Your task to perform on an android device: turn smart compose on in the gmail app Image 0: 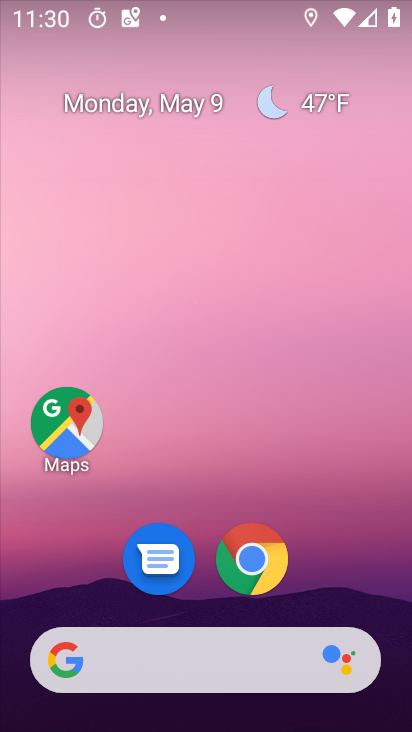
Step 0: drag from (340, 583) to (361, 21)
Your task to perform on an android device: turn smart compose on in the gmail app Image 1: 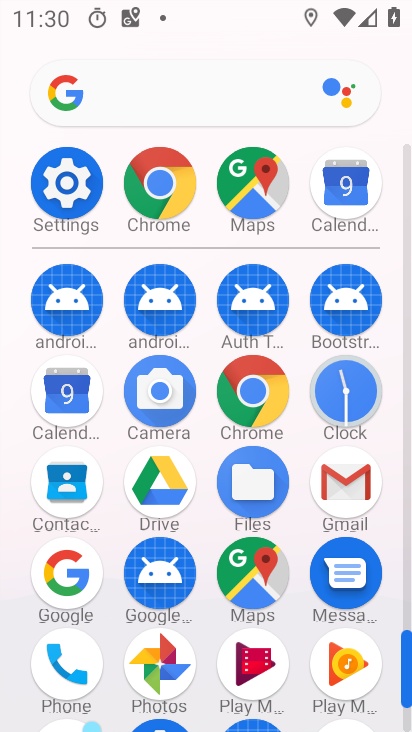
Step 1: click (346, 492)
Your task to perform on an android device: turn smart compose on in the gmail app Image 2: 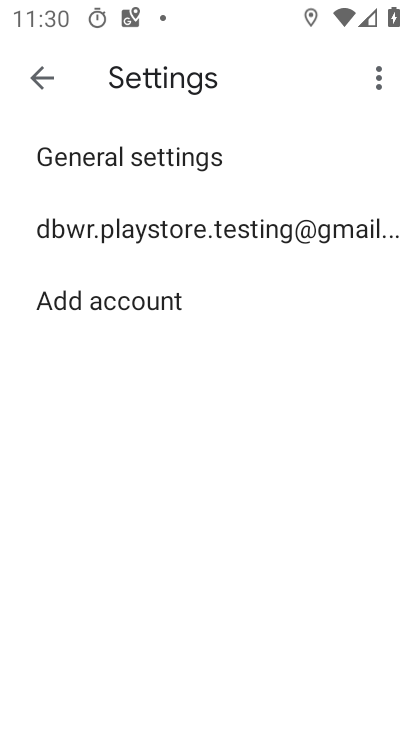
Step 2: click (30, 66)
Your task to perform on an android device: turn smart compose on in the gmail app Image 3: 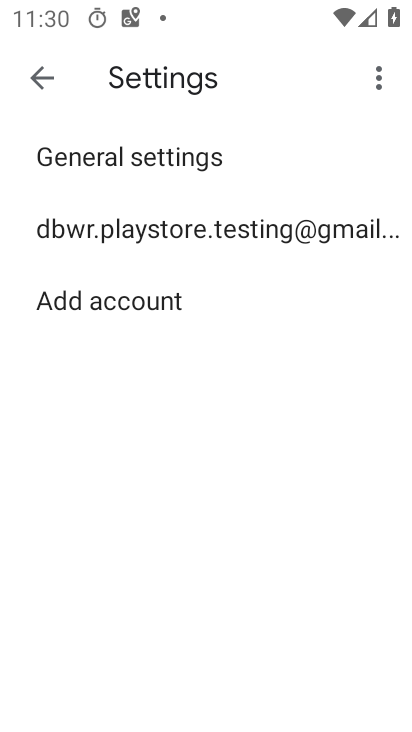
Step 3: click (47, 92)
Your task to perform on an android device: turn smart compose on in the gmail app Image 4: 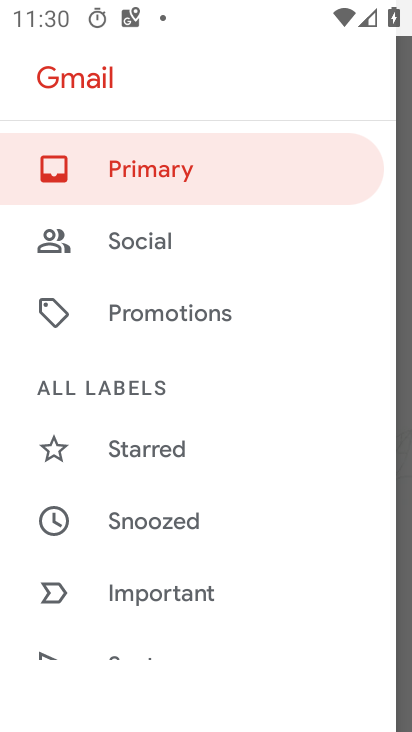
Step 4: drag from (186, 562) to (182, 275)
Your task to perform on an android device: turn smart compose on in the gmail app Image 5: 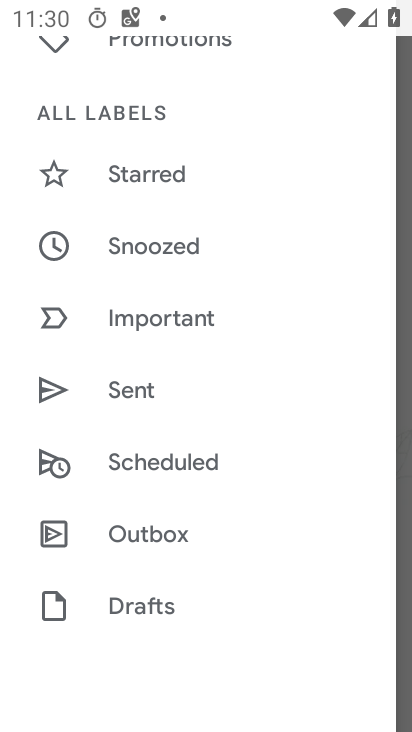
Step 5: click (215, 269)
Your task to perform on an android device: turn smart compose on in the gmail app Image 6: 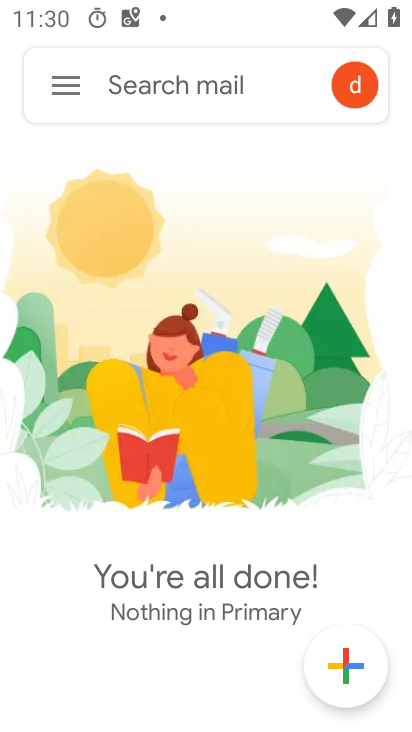
Step 6: drag from (243, 474) to (246, 345)
Your task to perform on an android device: turn smart compose on in the gmail app Image 7: 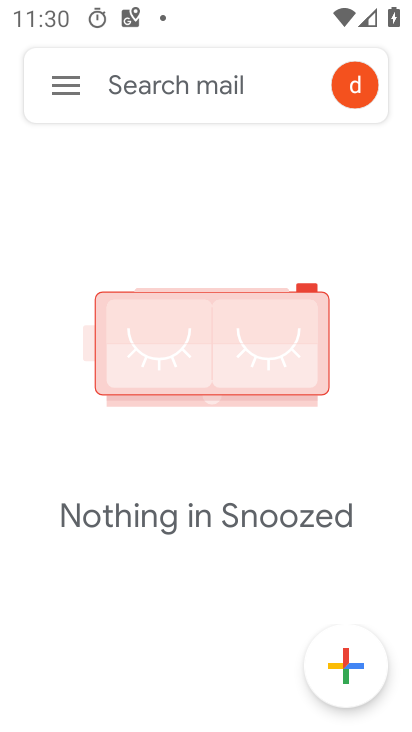
Step 7: click (76, 91)
Your task to perform on an android device: turn smart compose on in the gmail app Image 8: 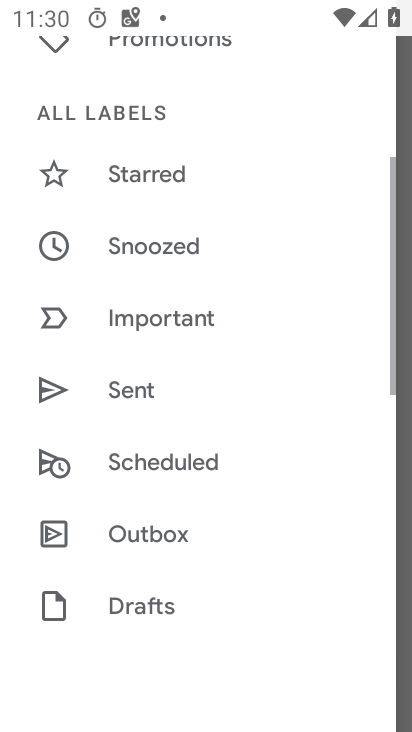
Step 8: drag from (182, 620) to (195, 209)
Your task to perform on an android device: turn smart compose on in the gmail app Image 9: 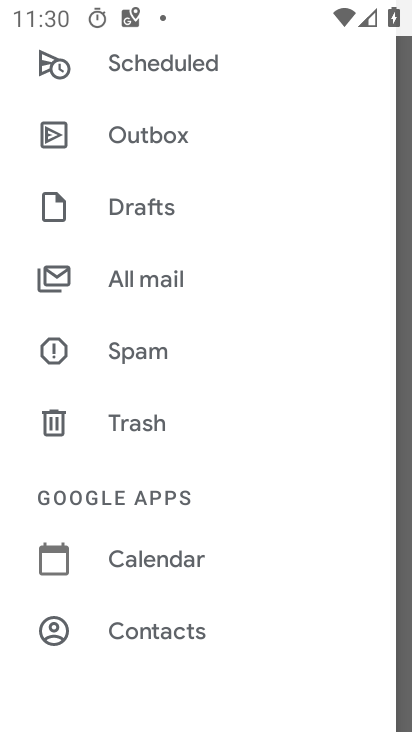
Step 9: drag from (120, 616) to (147, 178)
Your task to perform on an android device: turn smart compose on in the gmail app Image 10: 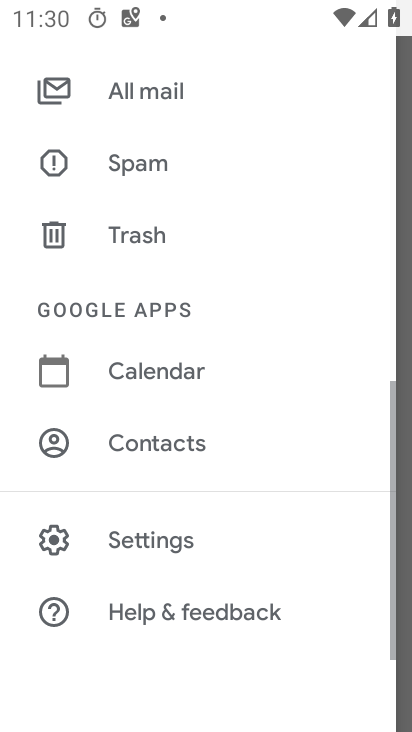
Step 10: click (164, 535)
Your task to perform on an android device: turn smart compose on in the gmail app Image 11: 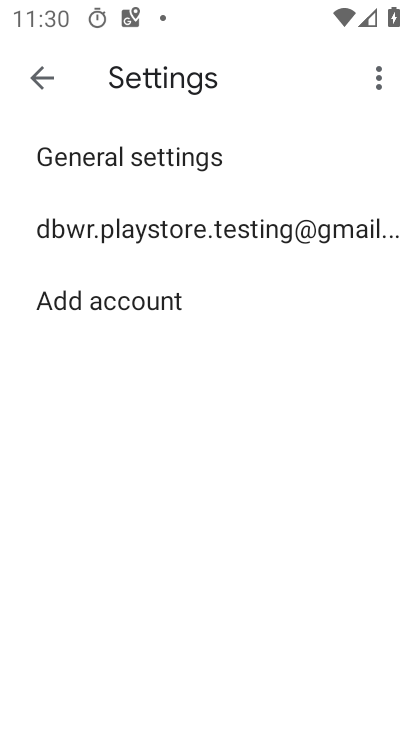
Step 11: click (233, 250)
Your task to perform on an android device: turn smart compose on in the gmail app Image 12: 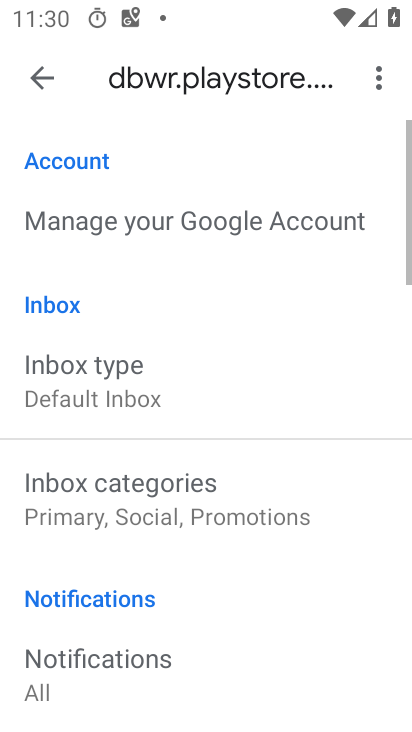
Step 12: task complete